Your task to perform on an android device: stop showing notifications on the lock screen Image 0: 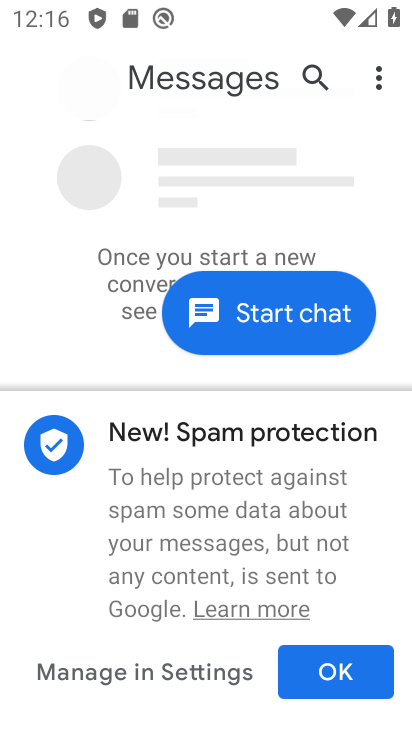
Step 0: press home button
Your task to perform on an android device: stop showing notifications on the lock screen Image 1: 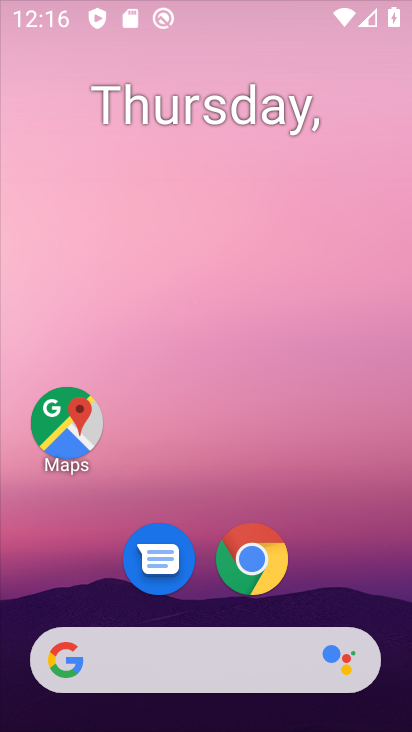
Step 1: drag from (336, 610) to (299, 79)
Your task to perform on an android device: stop showing notifications on the lock screen Image 2: 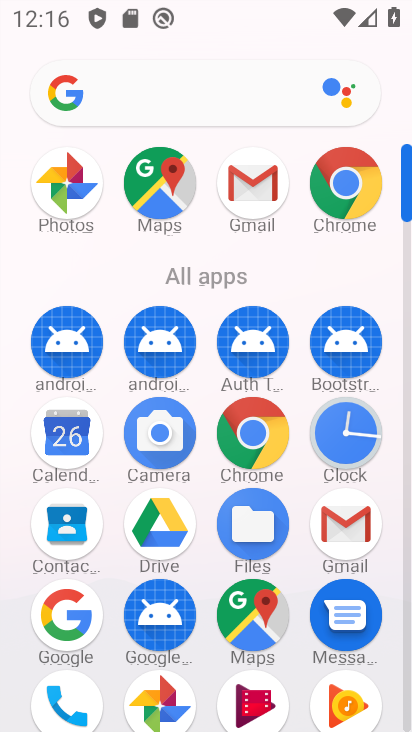
Step 2: drag from (209, 120) to (224, 37)
Your task to perform on an android device: stop showing notifications on the lock screen Image 3: 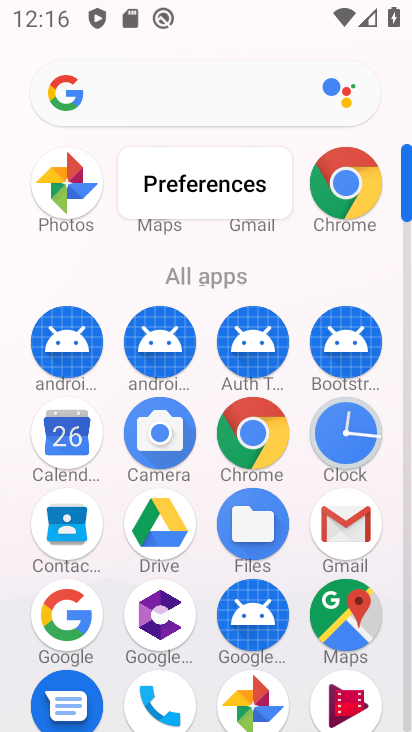
Step 3: drag from (204, 319) to (224, 123)
Your task to perform on an android device: stop showing notifications on the lock screen Image 4: 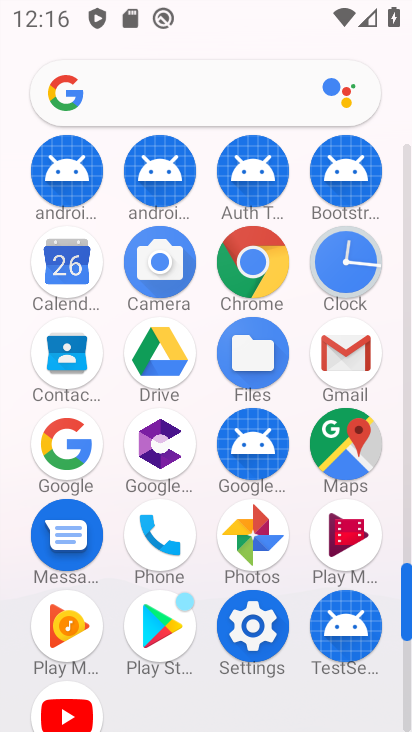
Step 4: click (272, 637)
Your task to perform on an android device: stop showing notifications on the lock screen Image 5: 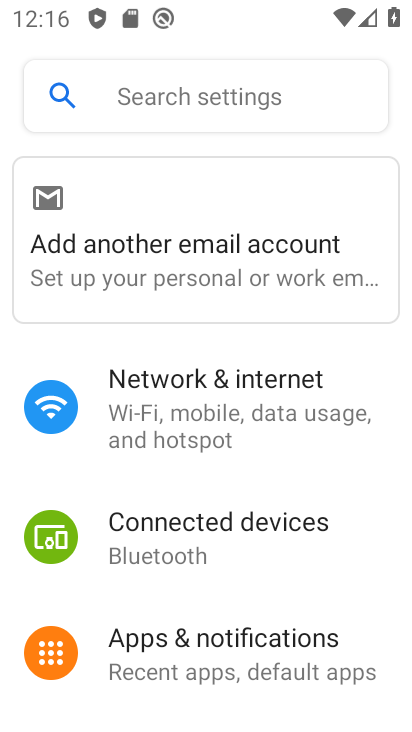
Step 5: drag from (259, 639) to (239, 342)
Your task to perform on an android device: stop showing notifications on the lock screen Image 6: 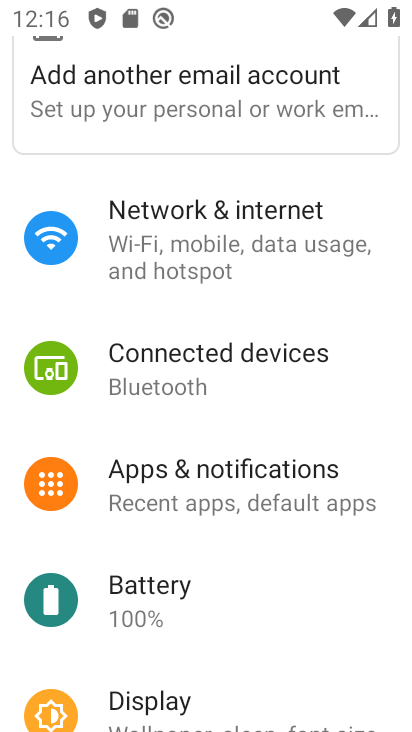
Step 6: click (244, 503)
Your task to perform on an android device: stop showing notifications on the lock screen Image 7: 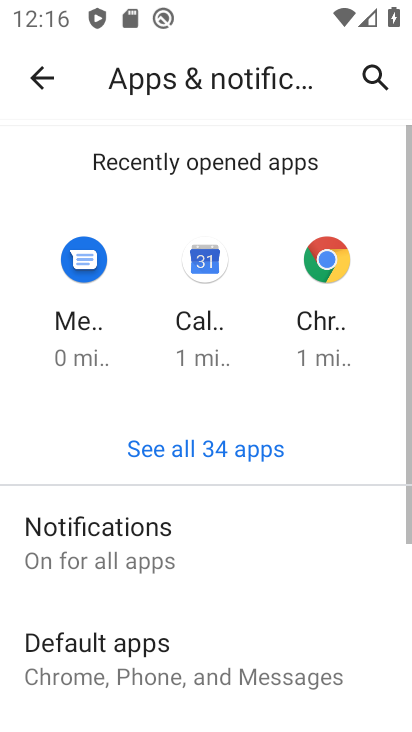
Step 7: click (254, 552)
Your task to perform on an android device: stop showing notifications on the lock screen Image 8: 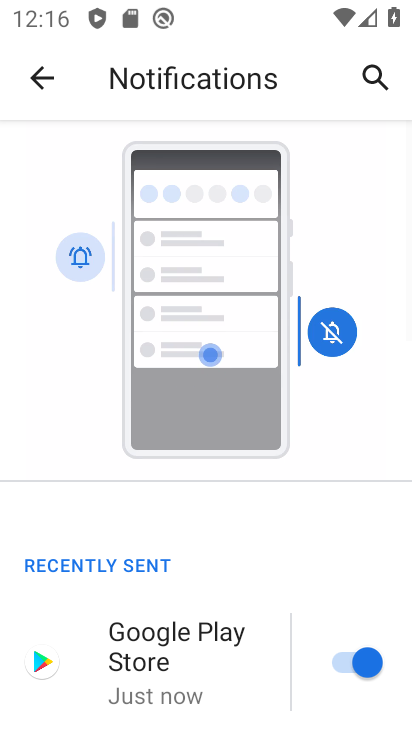
Step 8: drag from (250, 615) to (291, 152)
Your task to perform on an android device: stop showing notifications on the lock screen Image 9: 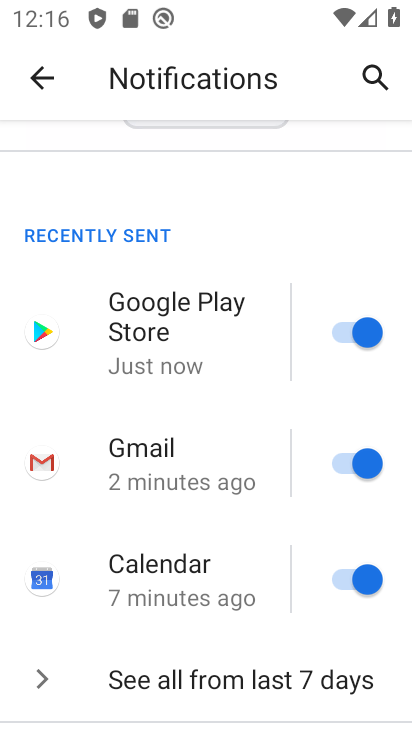
Step 9: drag from (263, 680) to (269, 259)
Your task to perform on an android device: stop showing notifications on the lock screen Image 10: 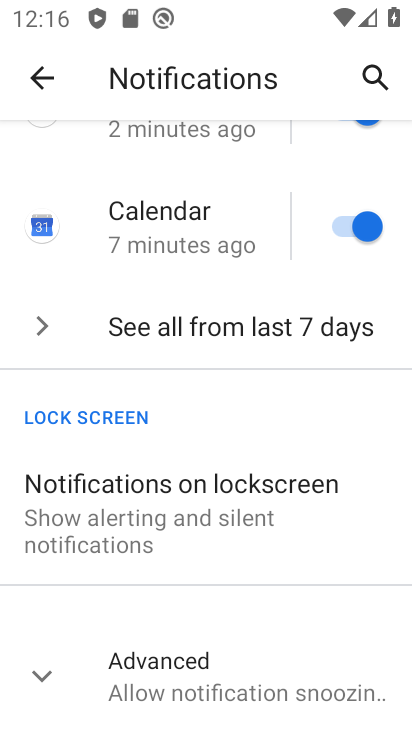
Step 10: click (247, 530)
Your task to perform on an android device: stop showing notifications on the lock screen Image 11: 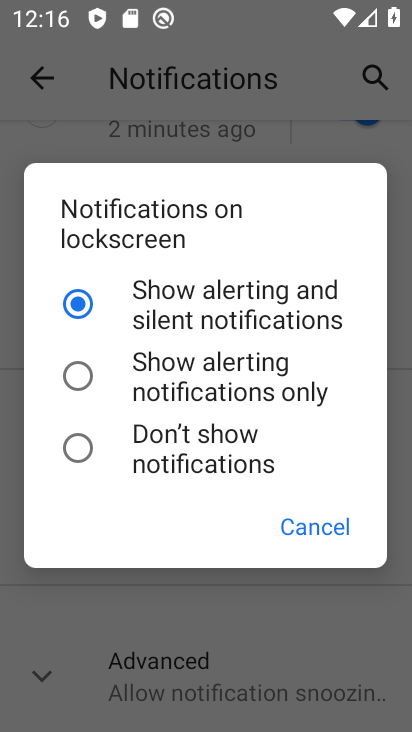
Step 11: click (233, 456)
Your task to perform on an android device: stop showing notifications on the lock screen Image 12: 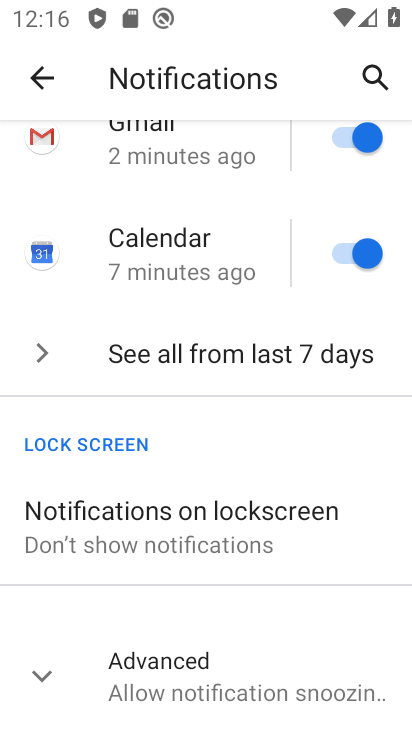
Step 12: task complete